Your task to perform on an android device: Search for a new mascara Image 0: 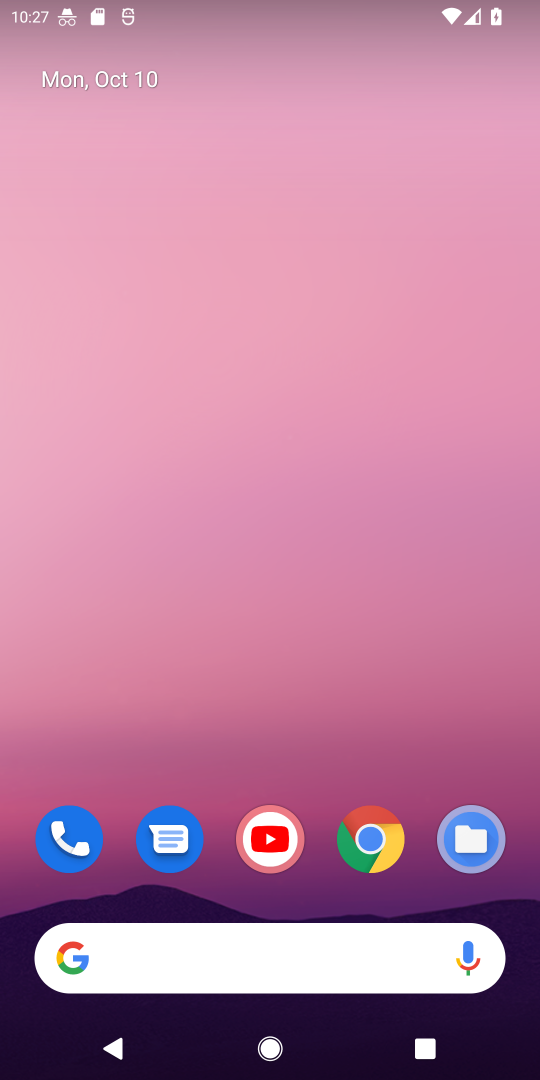
Step 0: drag from (310, 908) to (290, 101)
Your task to perform on an android device: Search for a new mascara Image 1: 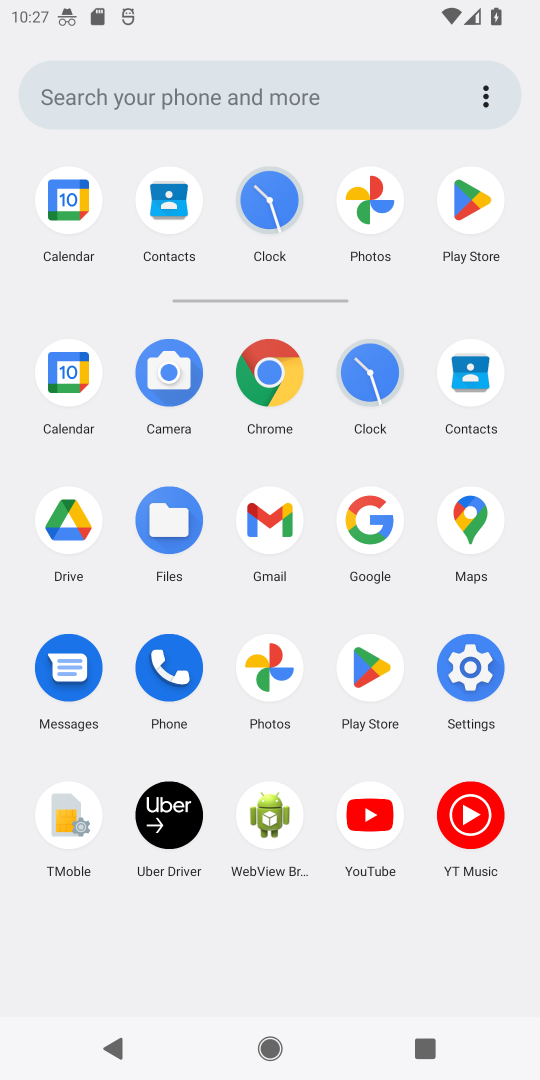
Step 1: click (271, 381)
Your task to perform on an android device: Search for a new mascara Image 2: 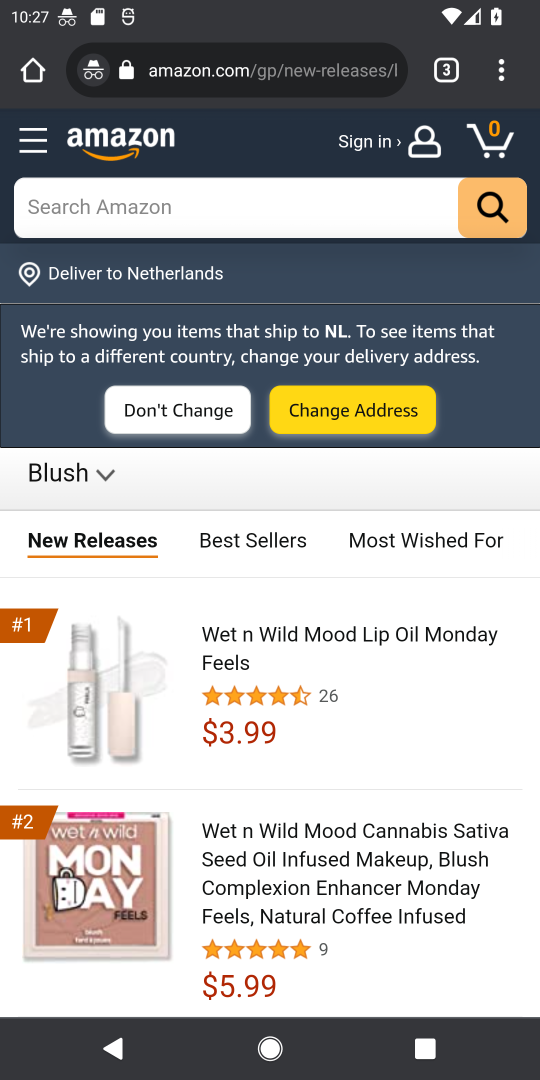
Step 2: click (292, 58)
Your task to perform on an android device: Search for a new mascara Image 3: 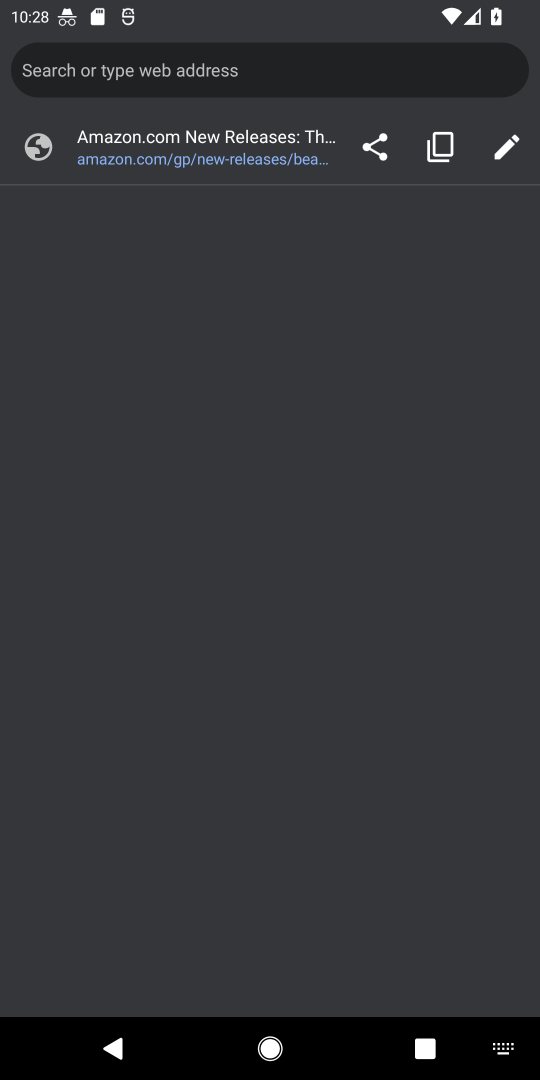
Step 3: type "a new mascara"
Your task to perform on an android device: Search for a new mascara Image 4: 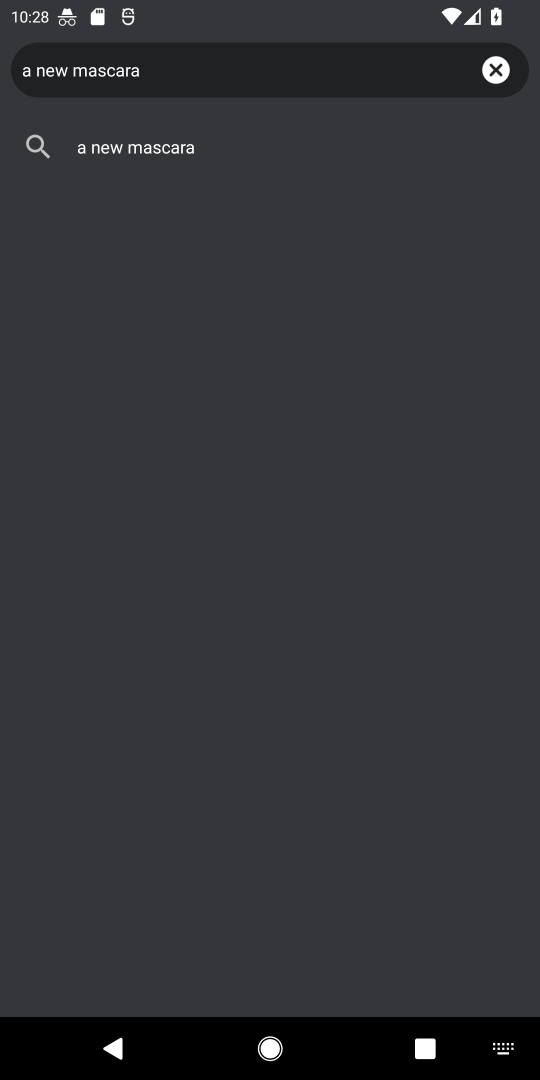
Step 4: press enter
Your task to perform on an android device: Search for a new mascara Image 5: 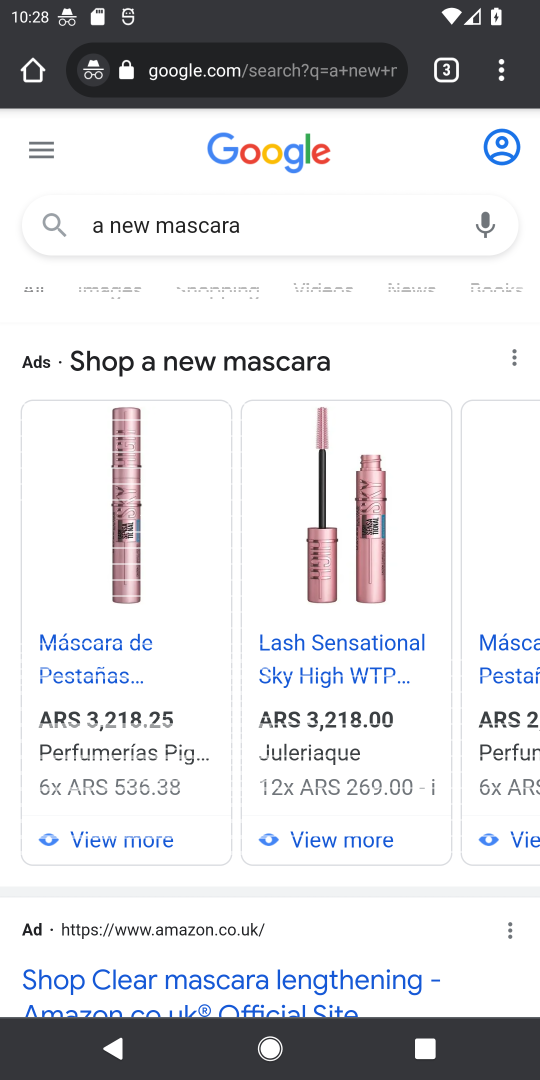
Step 5: drag from (316, 796) to (334, 83)
Your task to perform on an android device: Search for a new mascara Image 6: 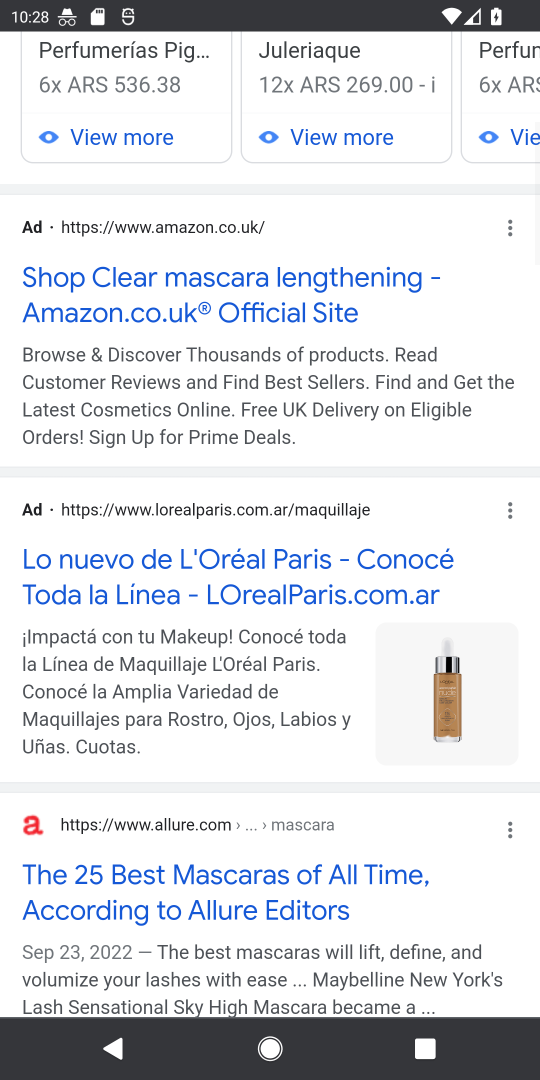
Step 6: drag from (344, 782) to (333, 189)
Your task to perform on an android device: Search for a new mascara Image 7: 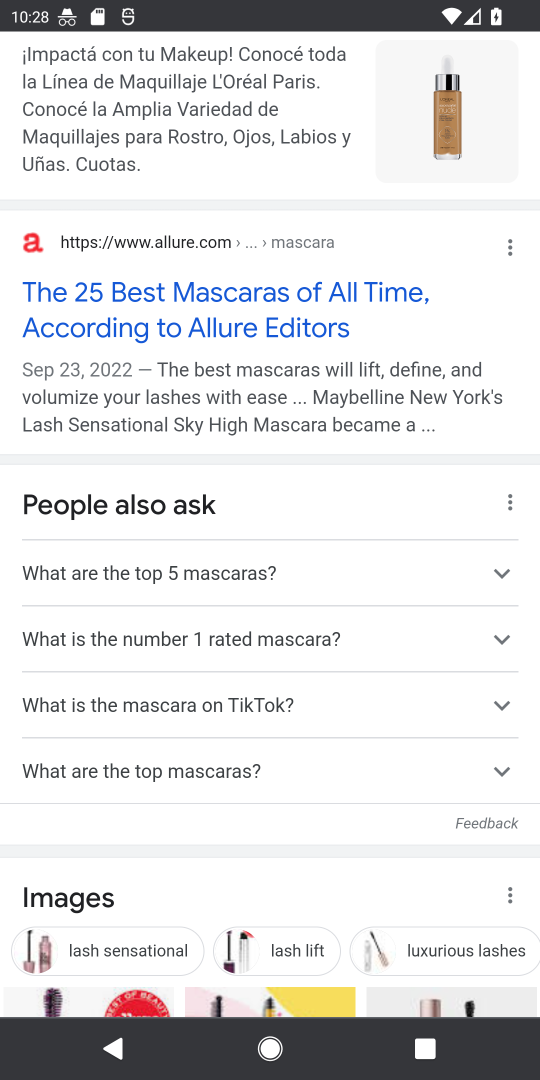
Step 7: drag from (344, 815) to (388, 255)
Your task to perform on an android device: Search for a new mascara Image 8: 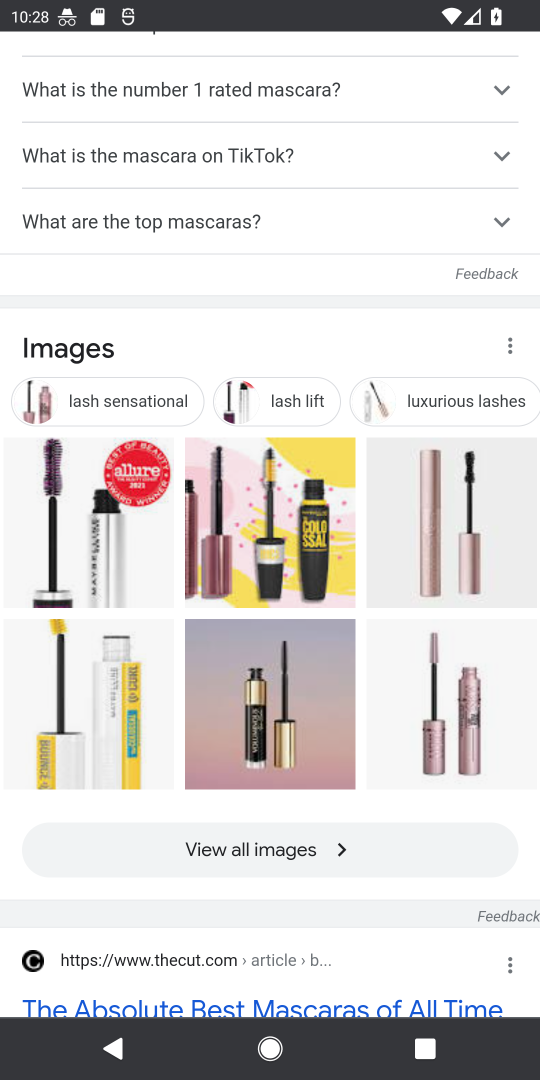
Step 8: drag from (286, 311) to (281, 867)
Your task to perform on an android device: Search for a new mascara Image 9: 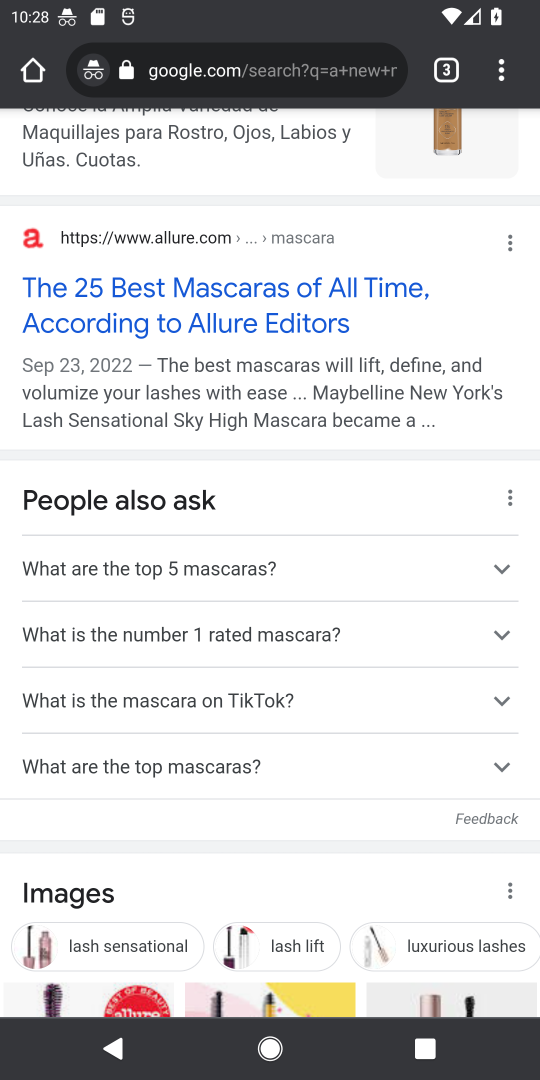
Step 9: click (257, 312)
Your task to perform on an android device: Search for a new mascara Image 10: 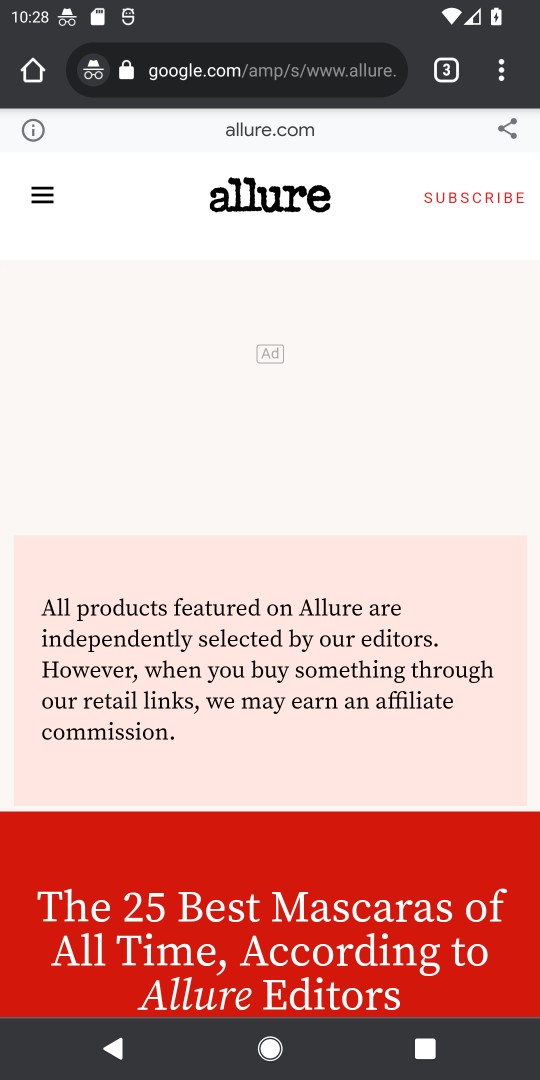
Step 10: task complete